Your task to perform on an android device: Open calendar and show me the third week of next month Image 0: 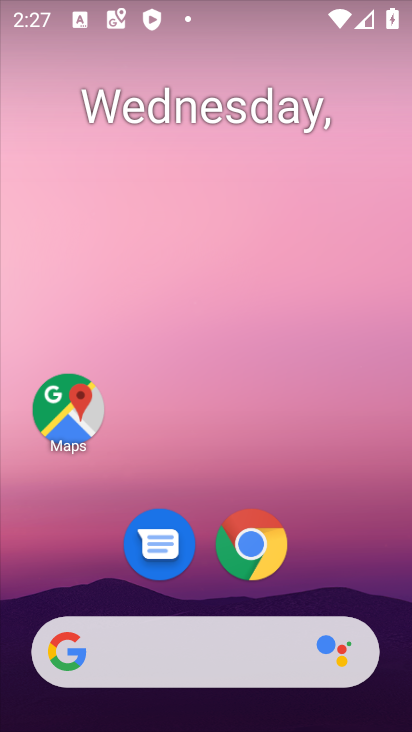
Step 0: drag from (395, 637) to (286, 139)
Your task to perform on an android device: Open calendar and show me the third week of next month Image 1: 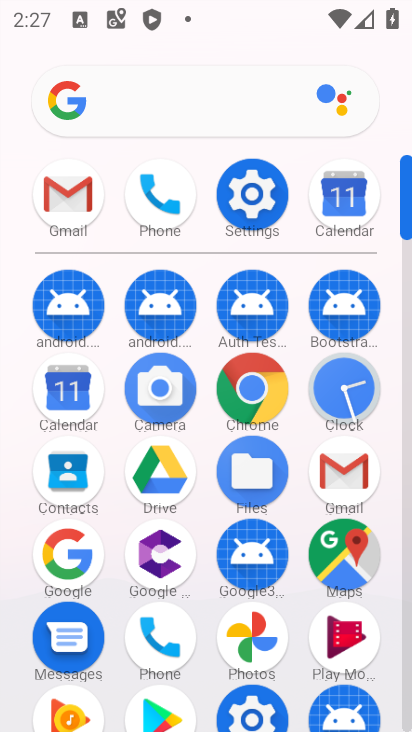
Step 1: click (406, 705)
Your task to perform on an android device: Open calendar and show me the third week of next month Image 2: 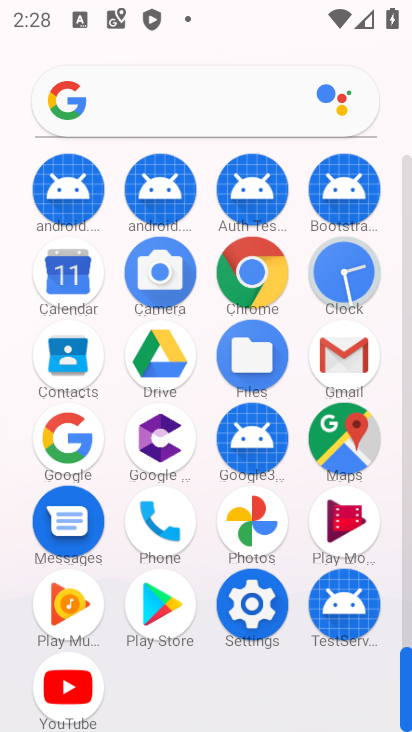
Step 2: click (65, 273)
Your task to perform on an android device: Open calendar and show me the third week of next month Image 3: 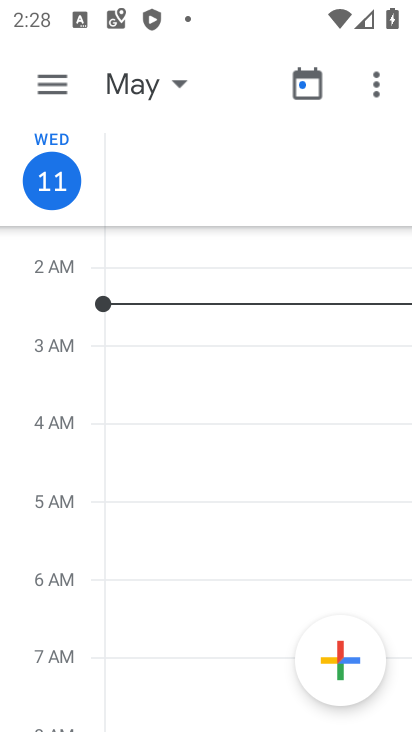
Step 3: click (54, 90)
Your task to perform on an android device: Open calendar and show me the third week of next month Image 4: 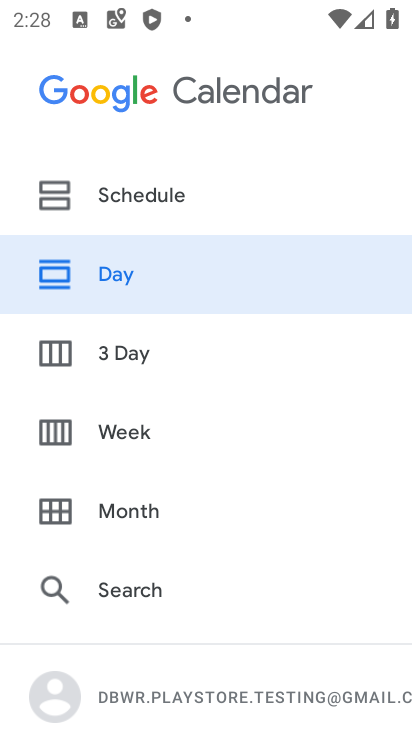
Step 4: click (128, 430)
Your task to perform on an android device: Open calendar and show me the third week of next month Image 5: 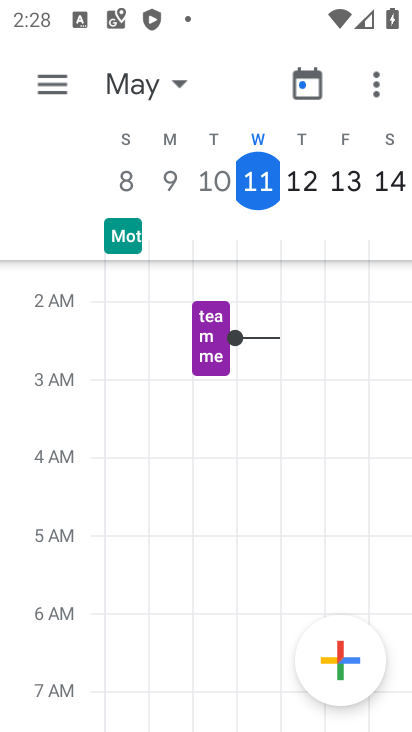
Step 5: click (174, 76)
Your task to perform on an android device: Open calendar and show me the third week of next month Image 6: 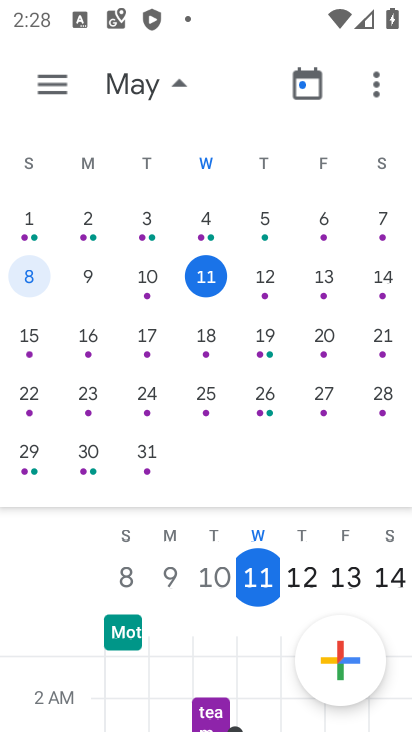
Step 6: drag from (375, 339) to (21, 271)
Your task to perform on an android device: Open calendar and show me the third week of next month Image 7: 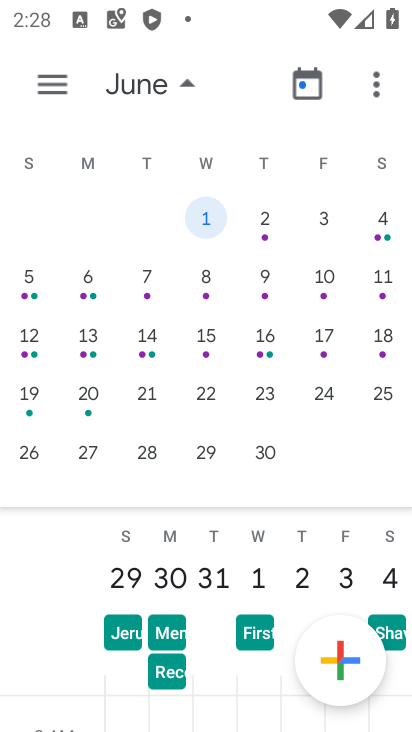
Step 7: click (22, 344)
Your task to perform on an android device: Open calendar and show me the third week of next month Image 8: 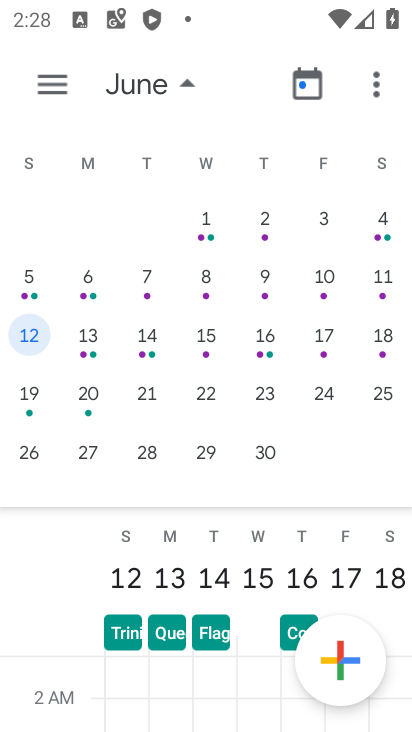
Step 8: task complete